Your task to perform on an android device: snooze an email in the gmail app Image 0: 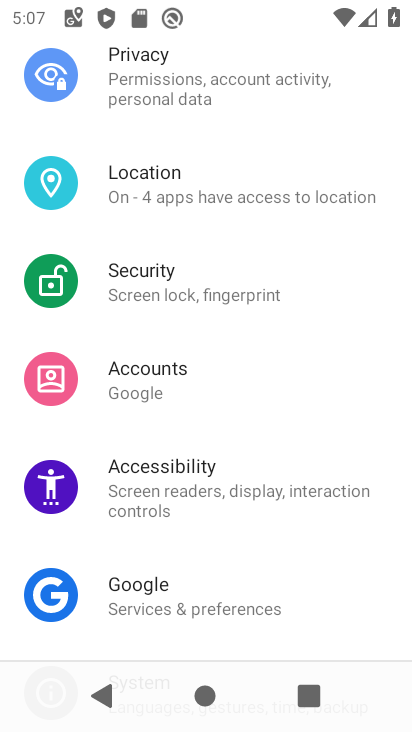
Step 0: press home button
Your task to perform on an android device: snooze an email in the gmail app Image 1: 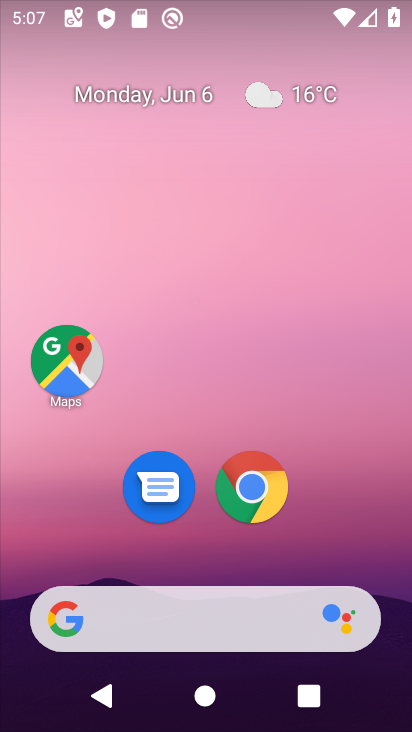
Step 1: drag from (337, 550) to (236, 33)
Your task to perform on an android device: snooze an email in the gmail app Image 2: 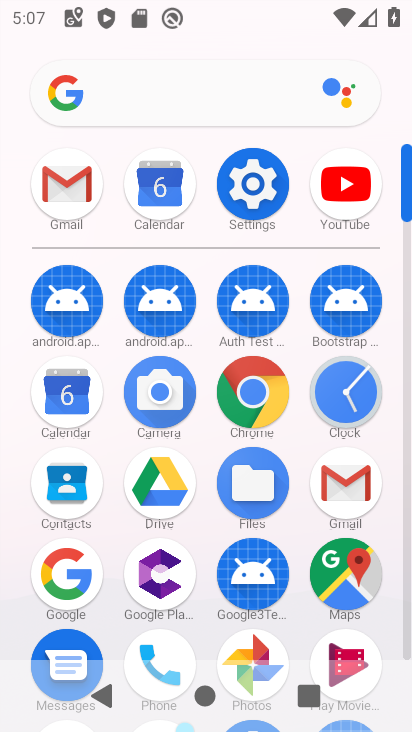
Step 2: click (76, 201)
Your task to perform on an android device: snooze an email in the gmail app Image 3: 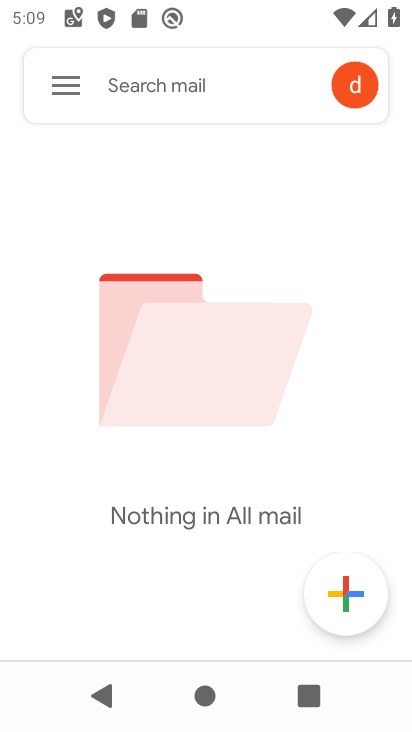
Step 3: task complete